Your task to perform on an android device: turn pop-ups off in chrome Image 0: 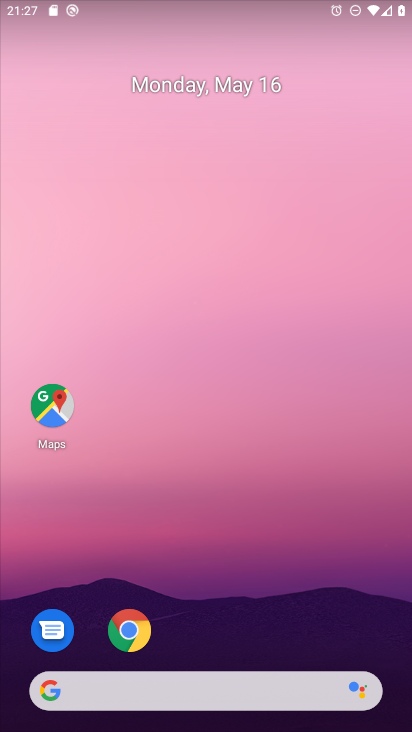
Step 0: click (126, 624)
Your task to perform on an android device: turn pop-ups off in chrome Image 1: 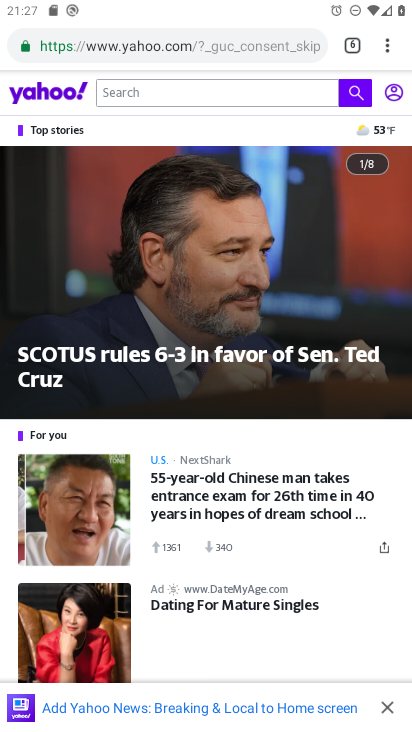
Step 1: click (385, 28)
Your task to perform on an android device: turn pop-ups off in chrome Image 2: 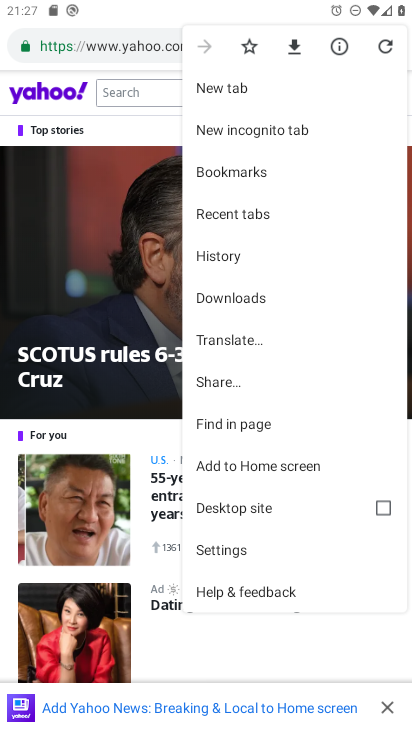
Step 2: click (227, 543)
Your task to perform on an android device: turn pop-ups off in chrome Image 3: 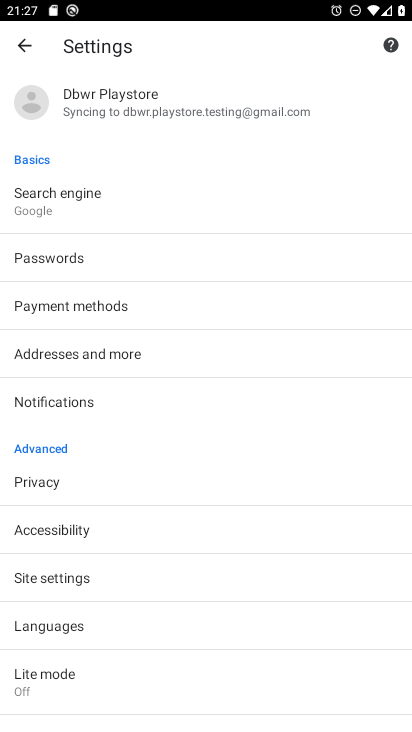
Step 3: drag from (288, 637) to (304, 308)
Your task to perform on an android device: turn pop-ups off in chrome Image 4: 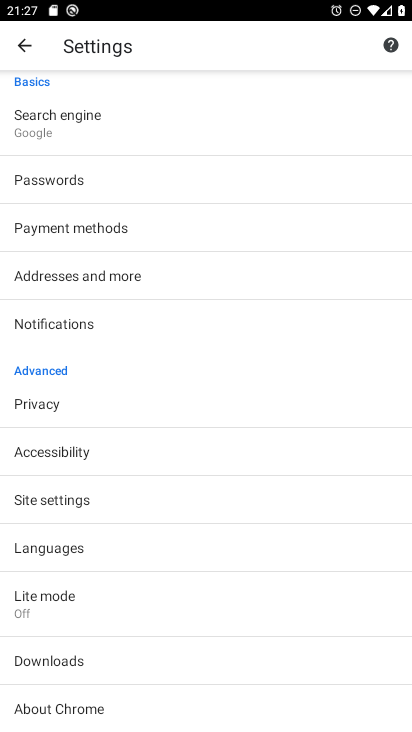
Step 4: click (145, 493)
Your task to perform on an android device: turn pop-ups off in chrome Image 5: 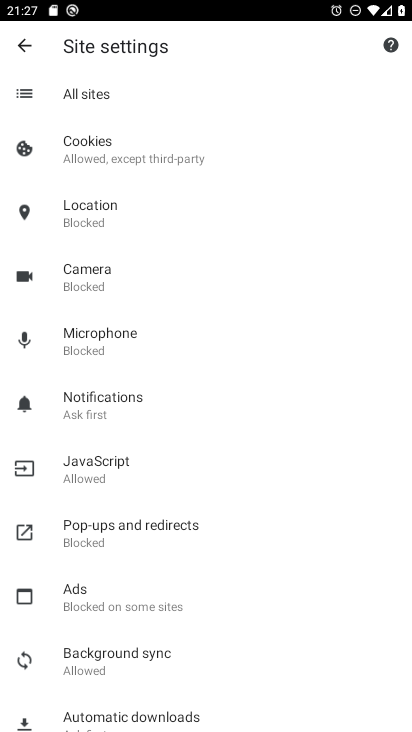
Step 5: click (105, 532)
Your task to perform on an android device: turn pop-ups off in chrome Image 6: 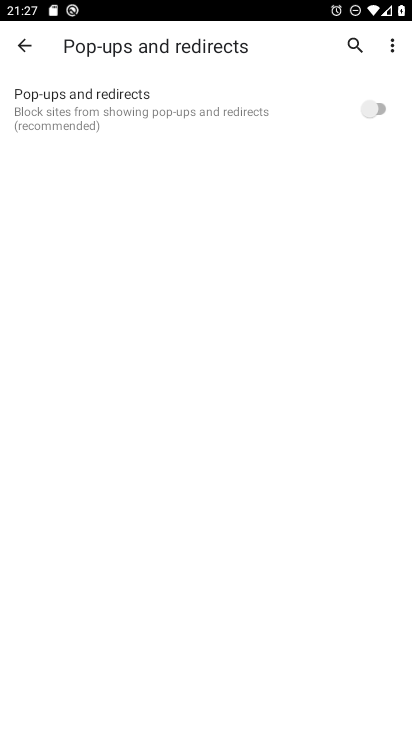
Step 6: click (362, 102)
Your task to perform on an android device: turn pop-ups off in chrome Image 7: 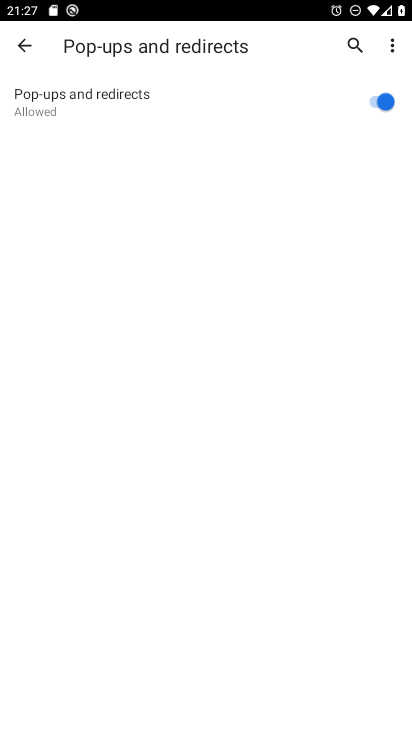
Step 7: click (372, 100)
Your task to perform on an android device: turn pop-ups off in chrome Image 8: 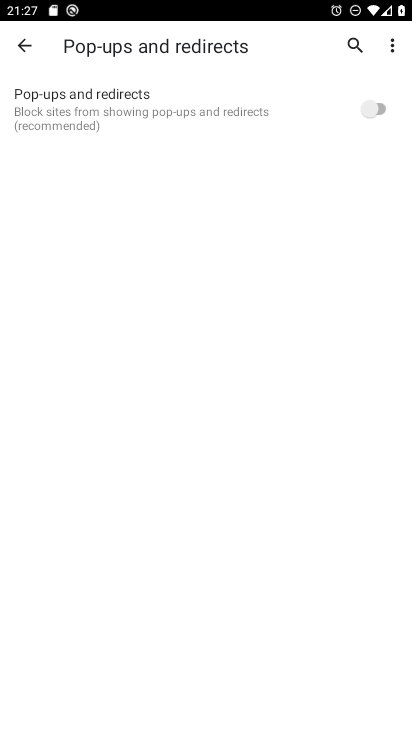
Step 8: task complete